Your task to perform on an android device: turn off wifi Image 0: 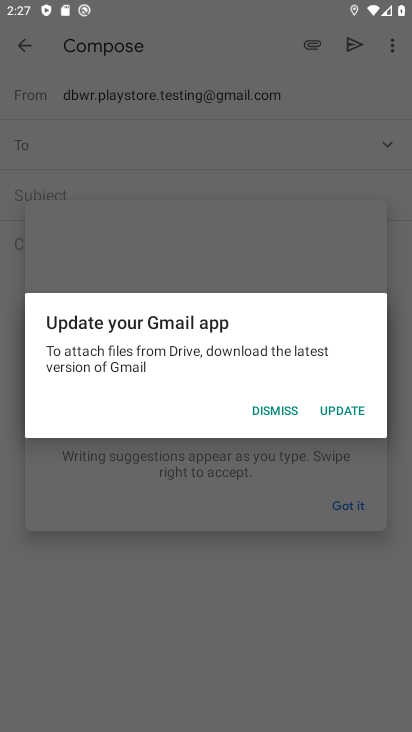
Step 0: press back button
Your task to perform on an android device: turn off wifi Image 1: 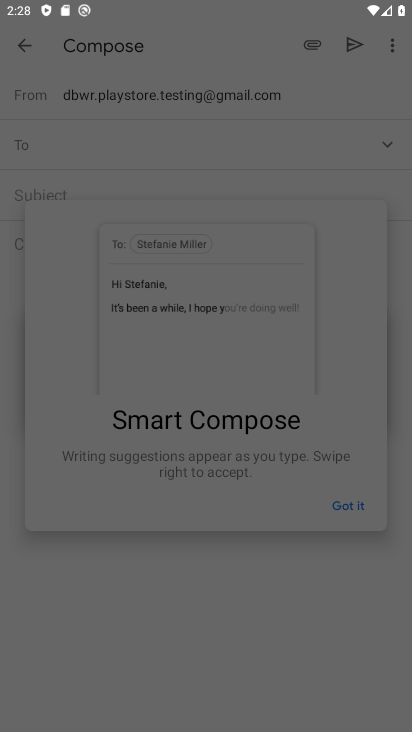
Step 1: press home button
Your task to perform on an android device: turn off wifi Image 2: 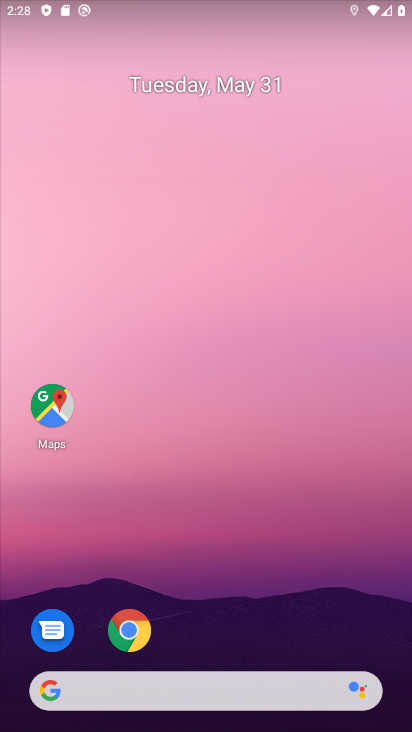
Step 2: drag from (75, 3) to (107, 449)
Your task to perform on an android device: turn off wifi Image 3: 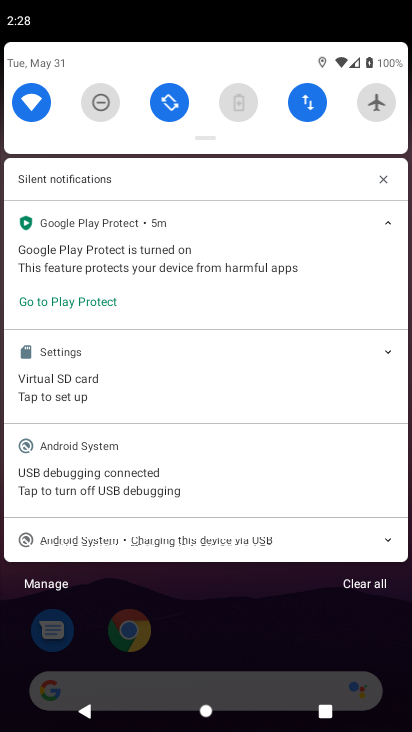
Step 3: click (35, 104)
Your task to perform on an android device: turn off wifi Image 4: 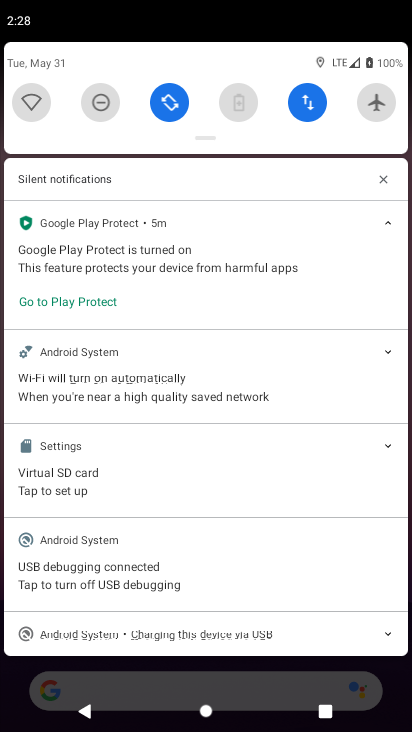
Step 4: task complete